Your task to perform on an android device: open app "Mercado Libre" (install if not already installed) and go to login screen Image 0: 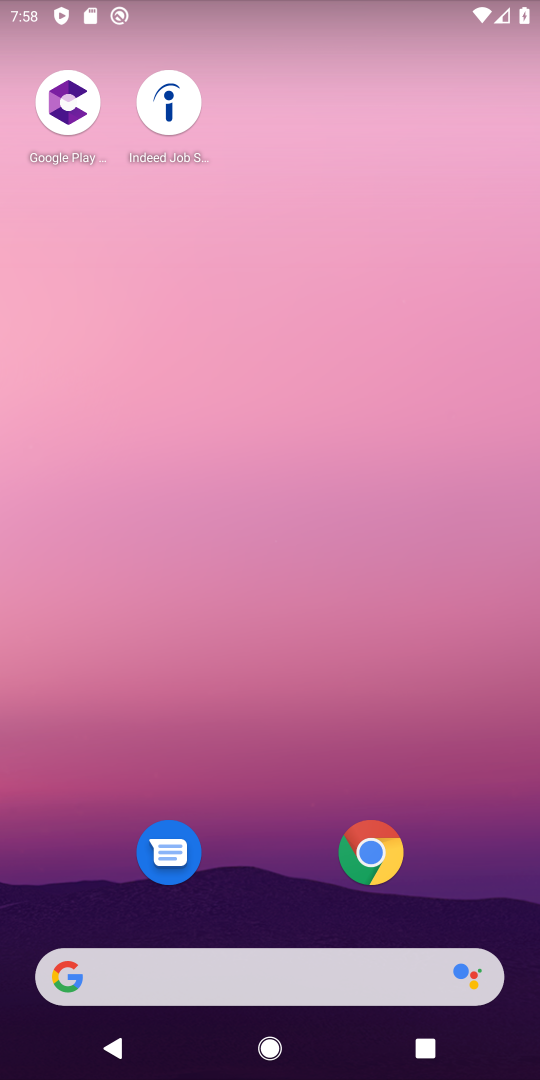
Step 0: drag from (240, 978) to (333, 96)
Your task to perform on an android device: open app "Mercado Libre" (install if not already installed) and go to login screen Image 1: 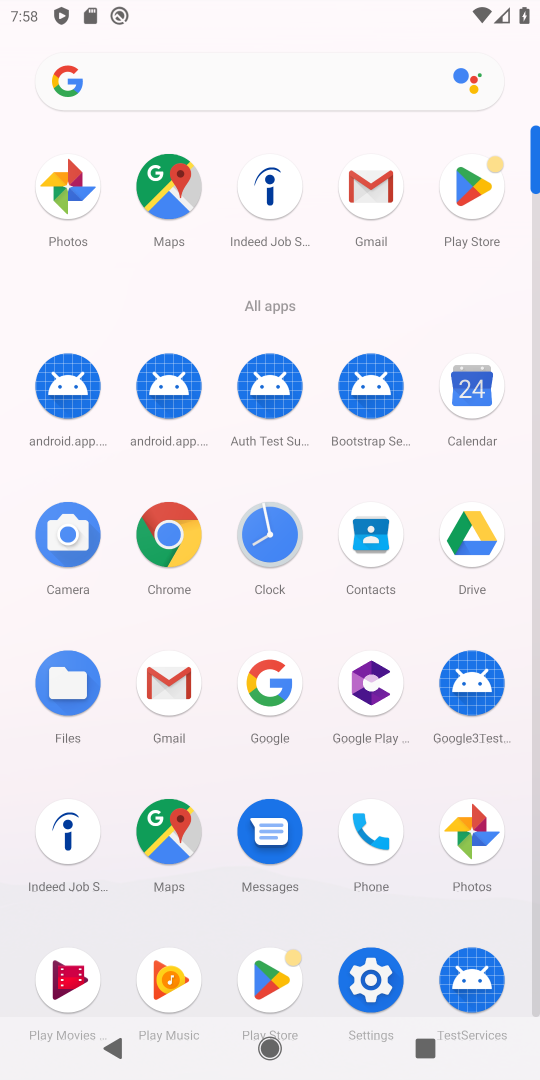
Step 1: click (470, 201)
Your task to perform on an android device: open app "Mercado Libre" (install if not already installed) and go to login screen Image 2: 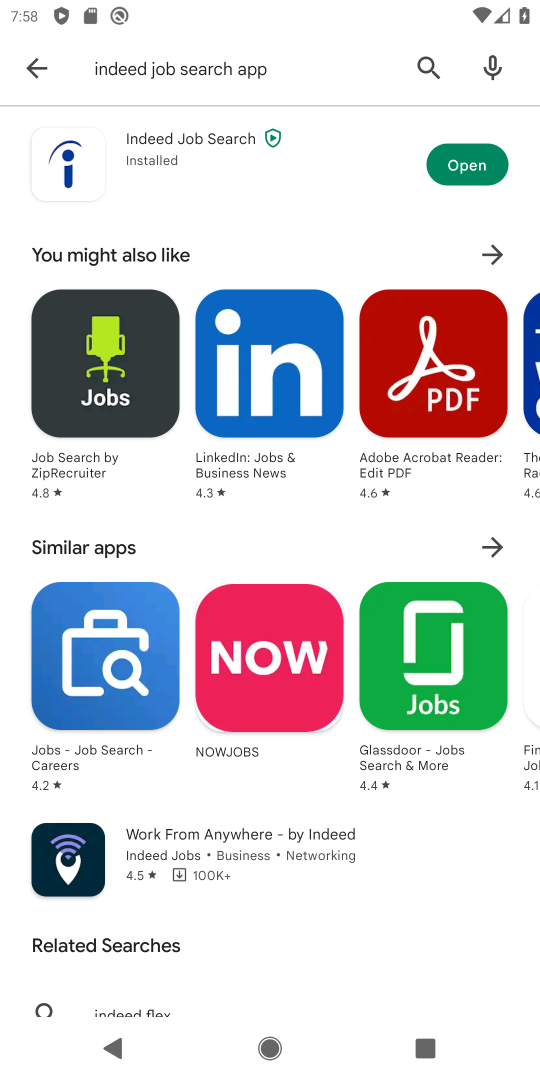
Step 2: press back button
Your task to perform on an android device: open app "Mercado Libre" (install if not already installed) and go to login screen Image 3: 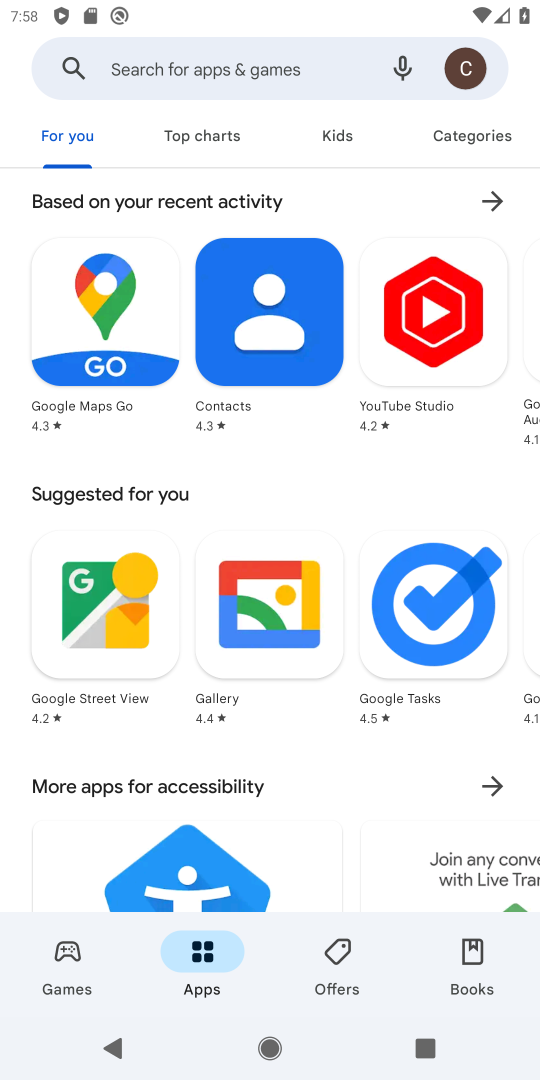
Step 3: click (235, 66)
Your task to perform on an android device: open app "Mercado Libre" (install if not already installed) and go to login screen Image 4: 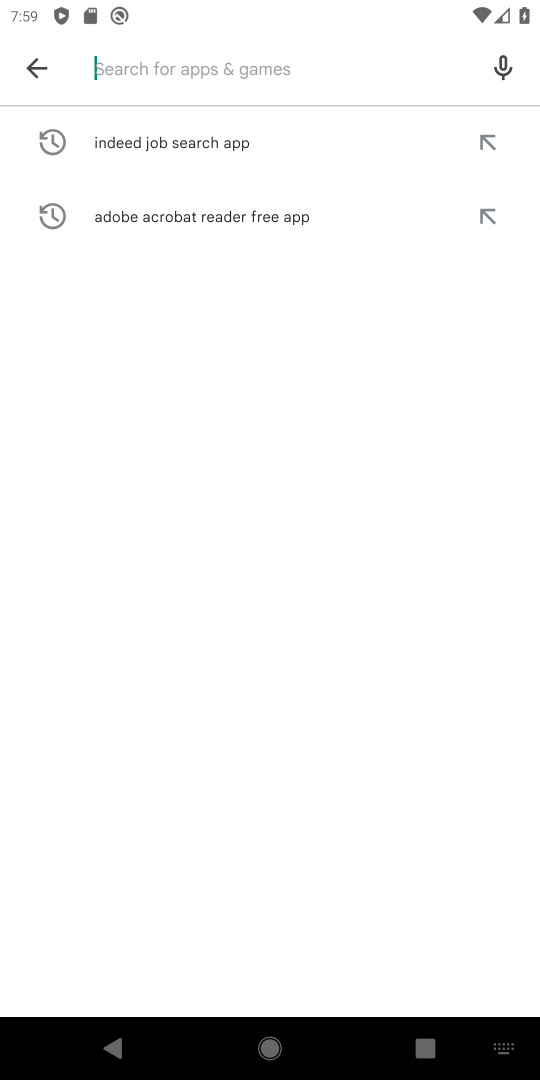
Step 4: type "Mercado Libre"
Your task to perform on an android device: open app "Mercado Libre" (install if not already installed) and go to login screen Image 5: 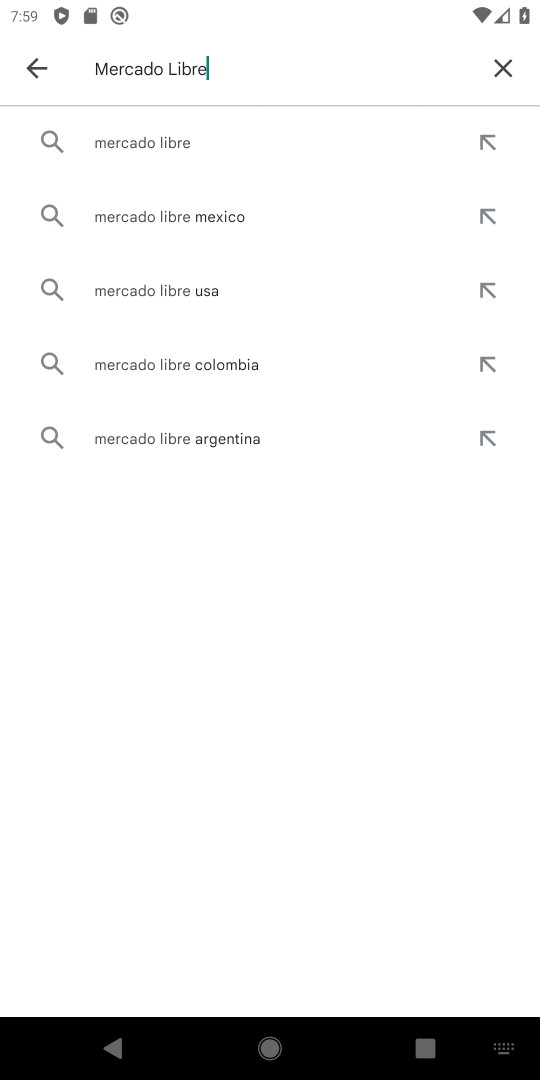
Step 5: click (179, 153)
Your task to perform on an android device: open app "Mercado Libre" (install if not already installed) and go to login screen Image 6: 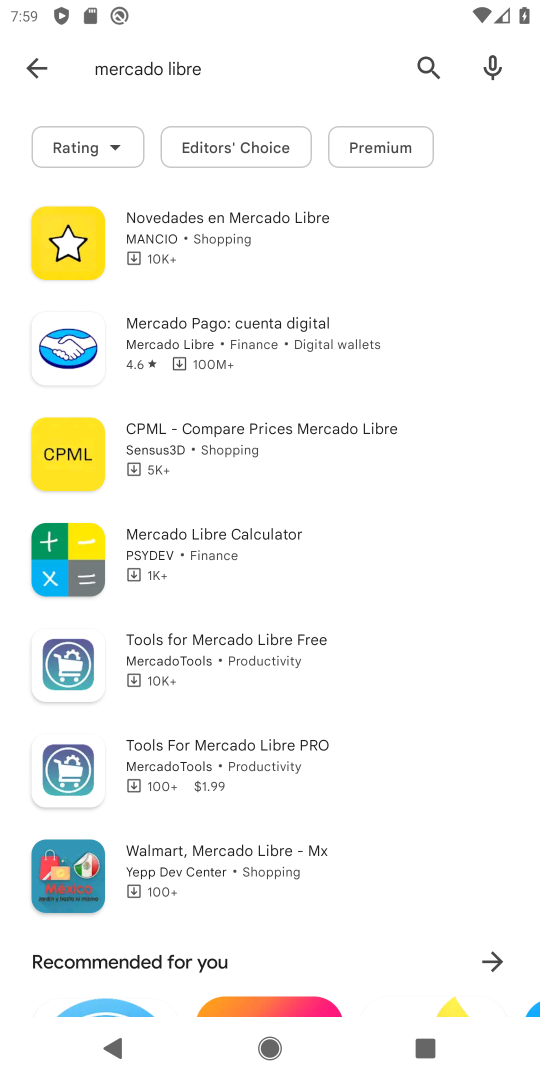
Step 6: task complete